Your task to perform on an android device: change the upload size in google photos Image 0: 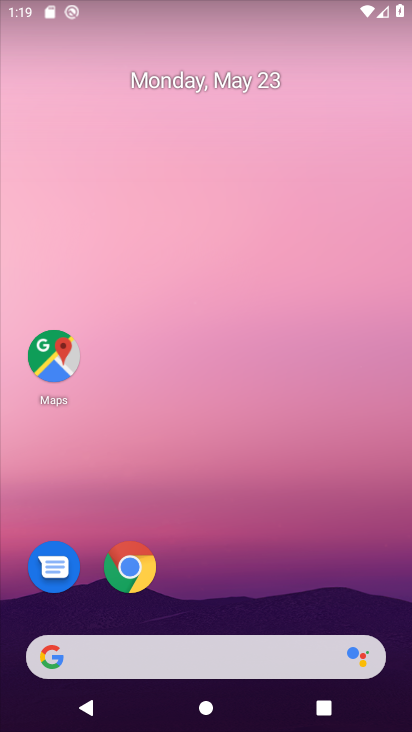
Step 0: drag from (248, 593) to (206, 215)
Your task to perform on an android device: change the upload size in google photos Image 1: 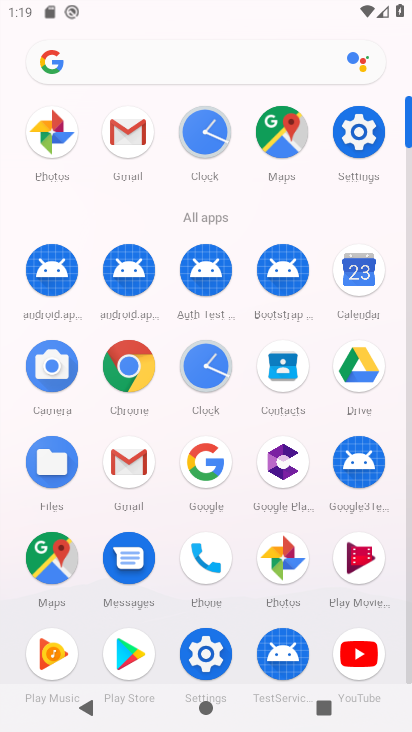
Step 1: click (287, 565)
Your task to perform on an android device: change the upload size in google photos Image 2: 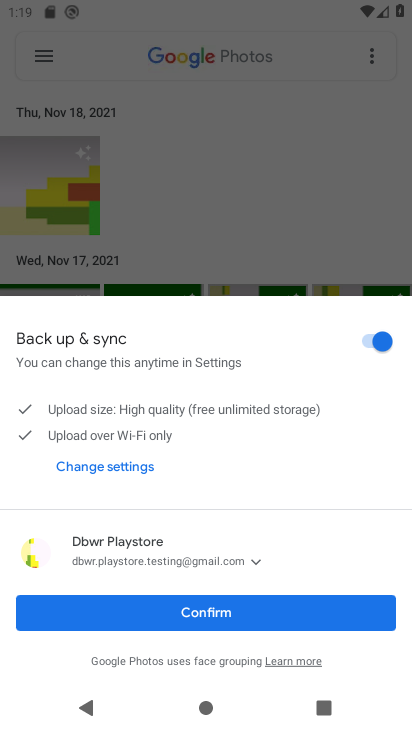
Step 2: click (291, 617)
Your task to perform on an android device: change the upload size in google photos Image 3: 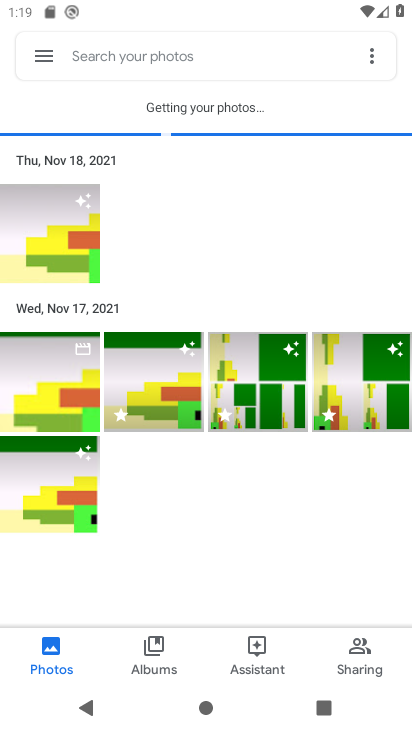
Step 3: click (365, 57)
Your task to perform on an android device: change the upload size in google photos Image 4: 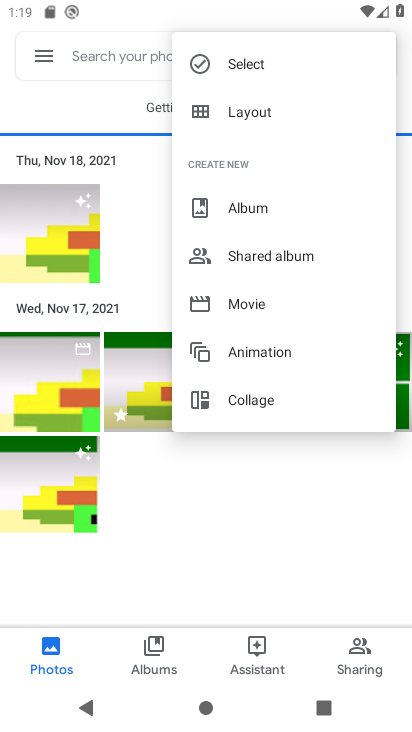
Step 4: click (39, 59)
Your task to perform on an android device: change the upload size in google photos Image 5: 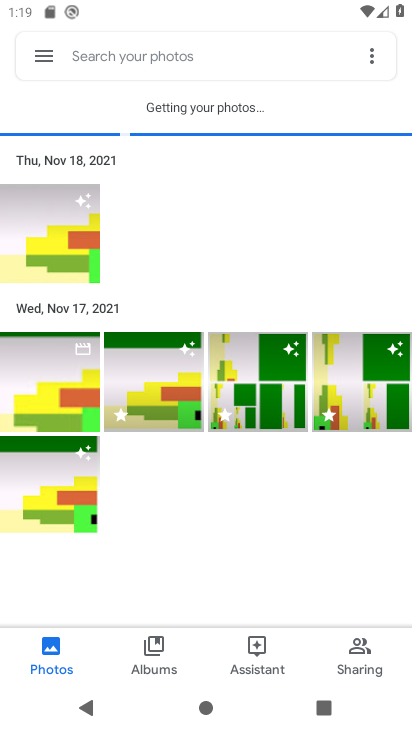
Step 5: click (40, 58)
Your task to perform on an android device: change the upload size in google photos Image 6: 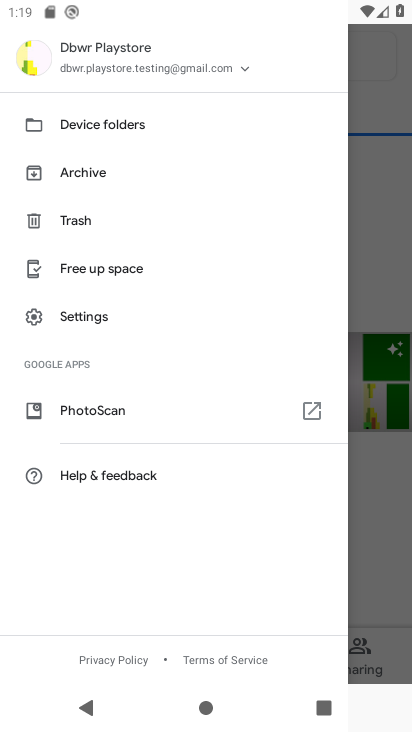
Step 6: click (112, 323)
Your task to perform on an android device: change the upload size in google photos Image 7: 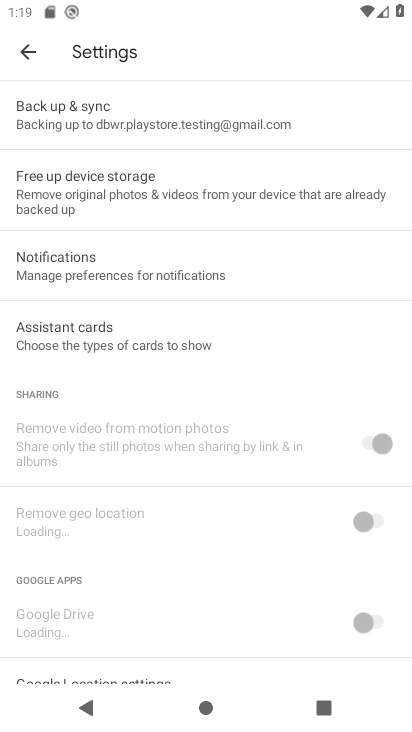
Step 7: click (139, 131)
Your task to perform on an android device: change the upload size in google photos Image 8: 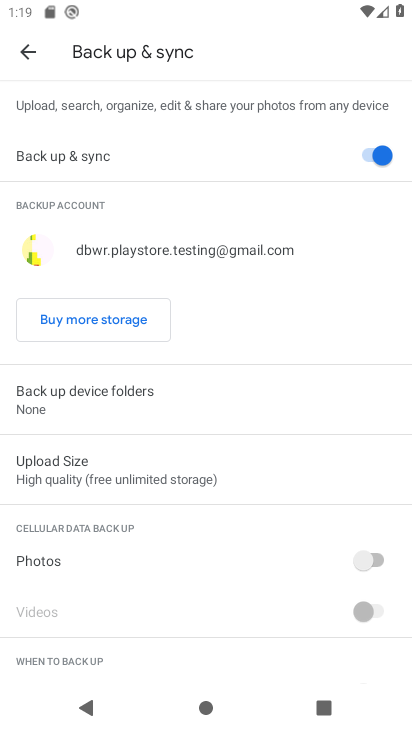
Step 8: click (118, 457)
Your task to perform on an android device: change the upload size in google photos Image 9: 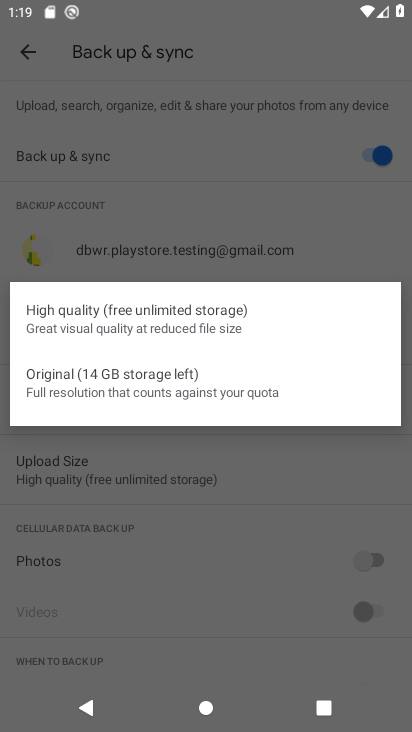
Step 9: click (134, 376)
Your task to perform on an android device: change the upload size in google photos Image 10: 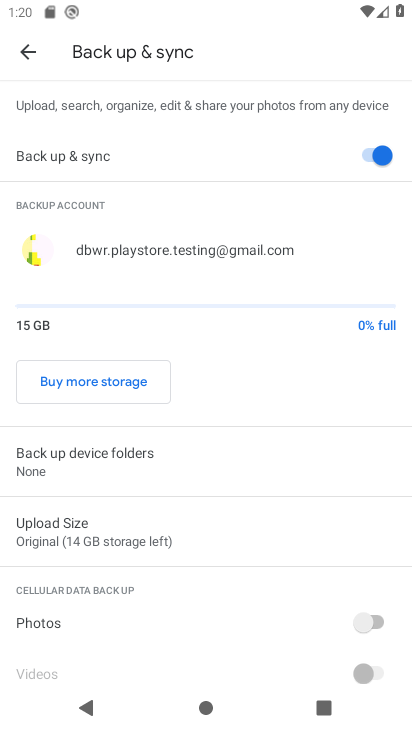
Step 10: task complete